Your task to perform on an android device: toggle location history Image 0: 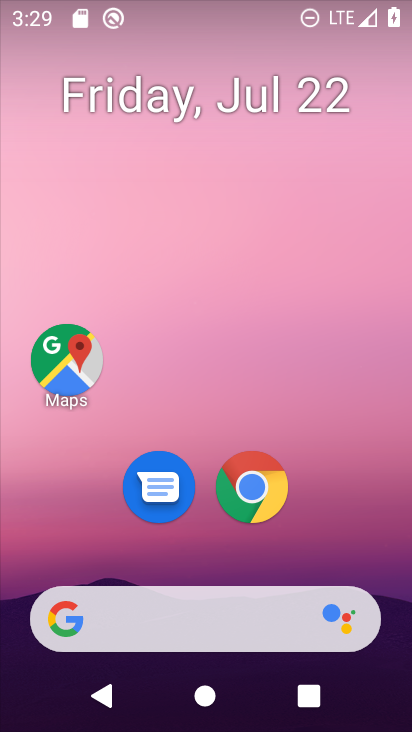
Step 0: drag from (102, 500) to (173, 28)
Your task to perform on an android device: toggle location history Image 1: 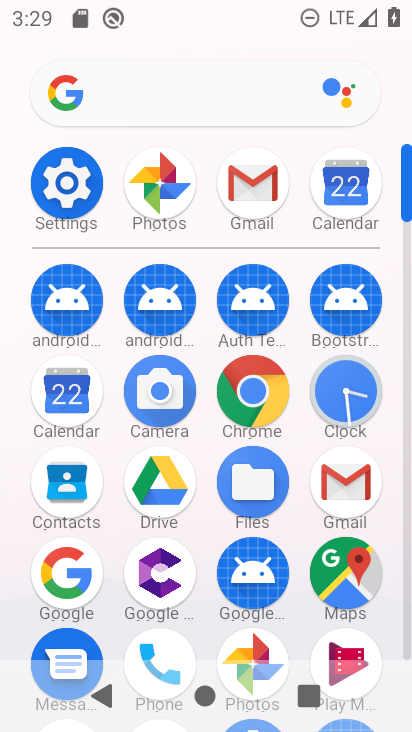
Step 1: click (61, 177)
Your task to perform on an android device: toggle location history Image 2: 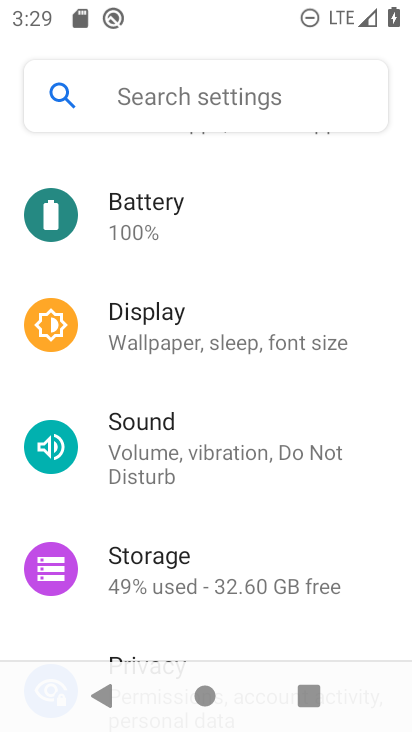
Step 2: drag from (198, 234) to (139, 699)
Your task to perform on an android device: toggle location history Image 3: 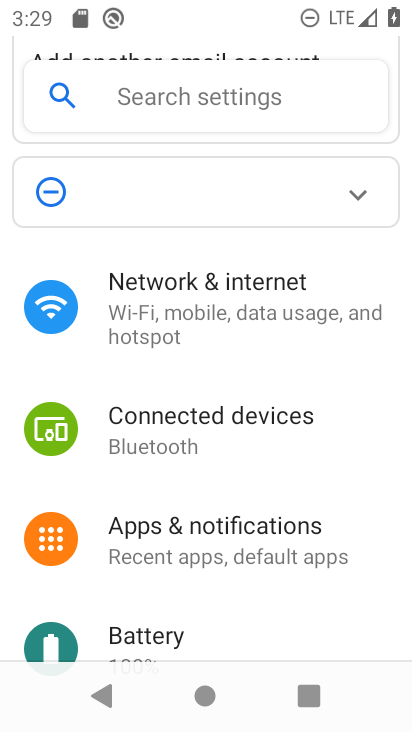
Step 3: drag from (123, 570) to (201, 116)
Your task to perform on an android device: toggle location history Image 4: 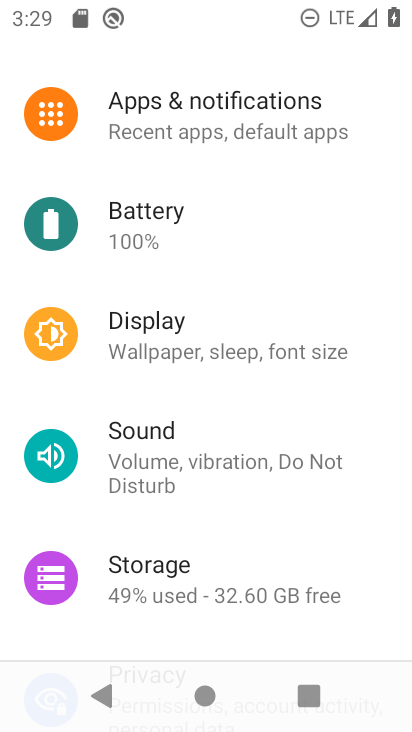
Step 4: drag from (158, 555) to (223, 10)
Your task to perform on an android device: toggle location history Image 5: 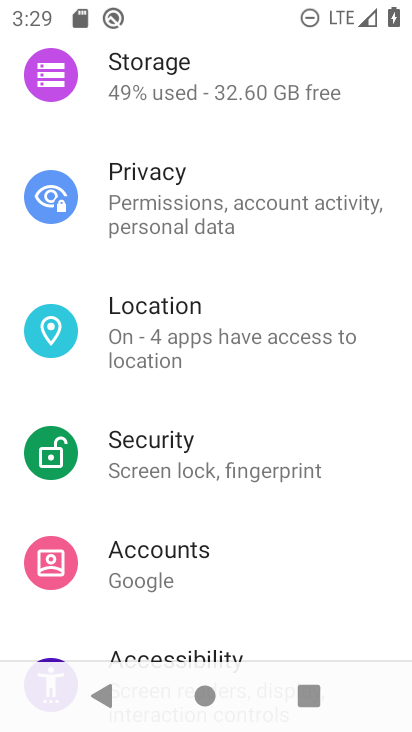
Step 5: click (153, 320)
Your task to perform on an android device: toggle location history Image 6: 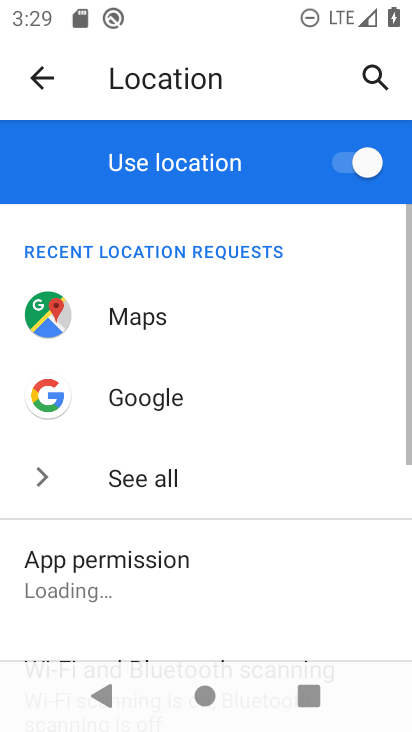
Step 6: drag from (132, 584) to (213, 41)
Your task to perform on an android device: toggle location history Image 7: 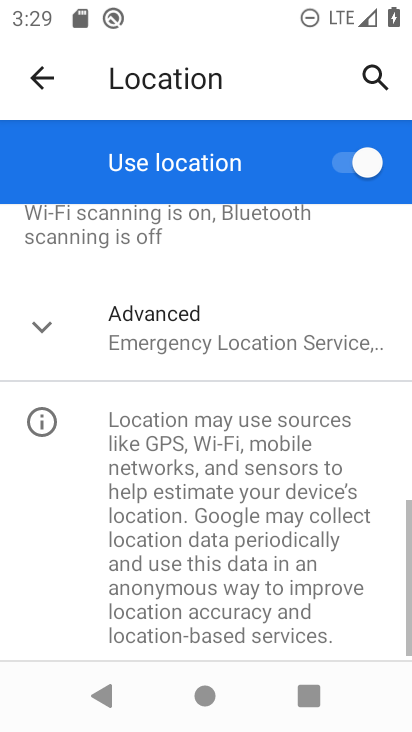
Step 7: click (170, 328)
Your task to perform on an android device: toggle location history Image 8: 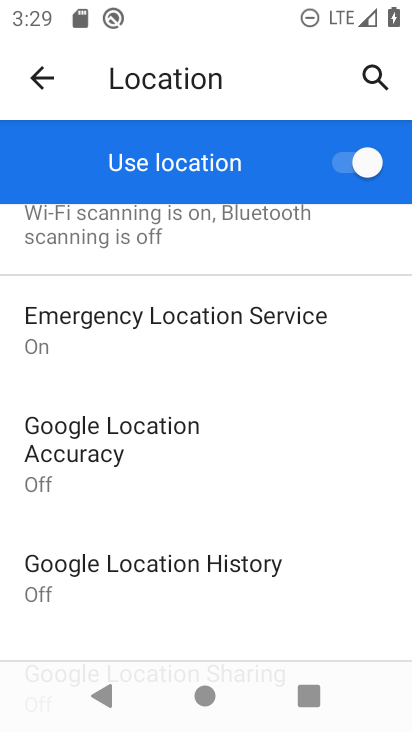
Step 8: click (131, 574)
Your task to perform on an android device: toggle location history Image 9: 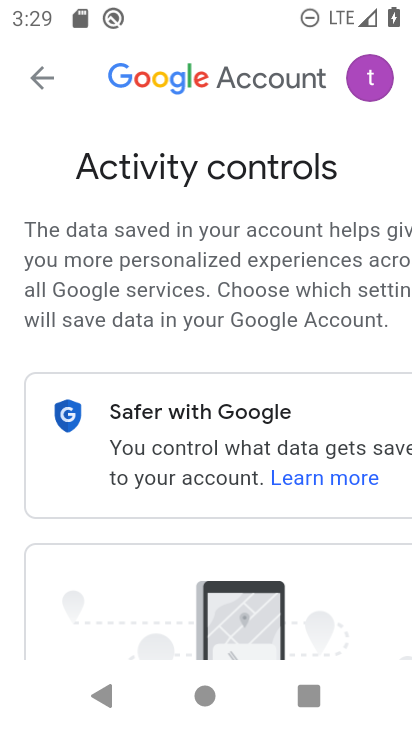
Step 9: task complete